Your task to perform on an android device: find photos in the google photos app Image 0: 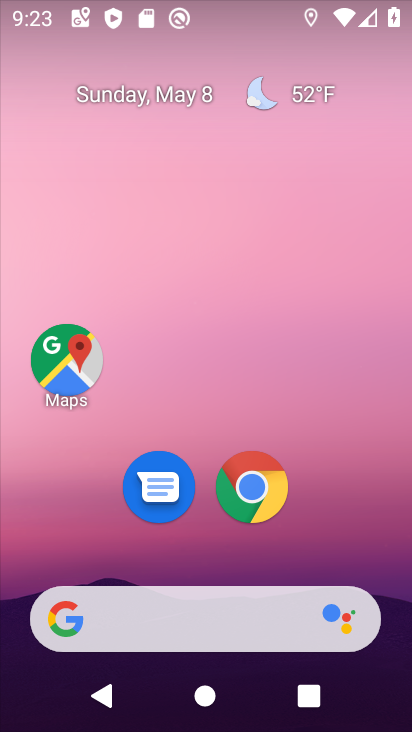
Step 0: drag from (391, 605) to (233, 45)
Your task to perform on an android device: find photos in the google photos app Image 1: 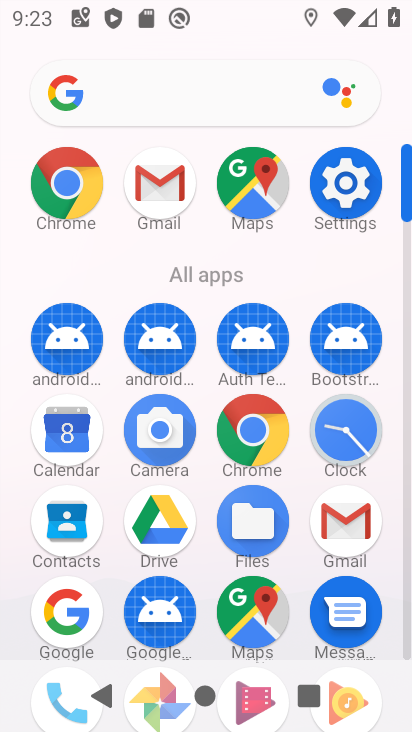
Step 1: drag from (206, 630) to (206, 219)
Your task to perform on an android device: find photos in the google photos app Image 2: 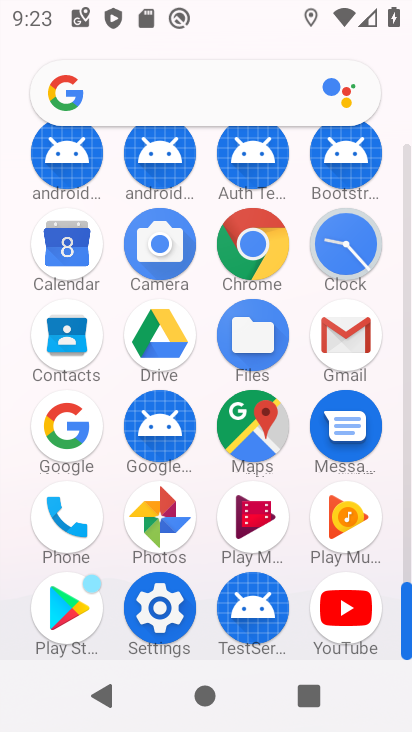
Step 2: click (169, 531)
Your task to perform on an android device: find photos in the google photos app Image 3: 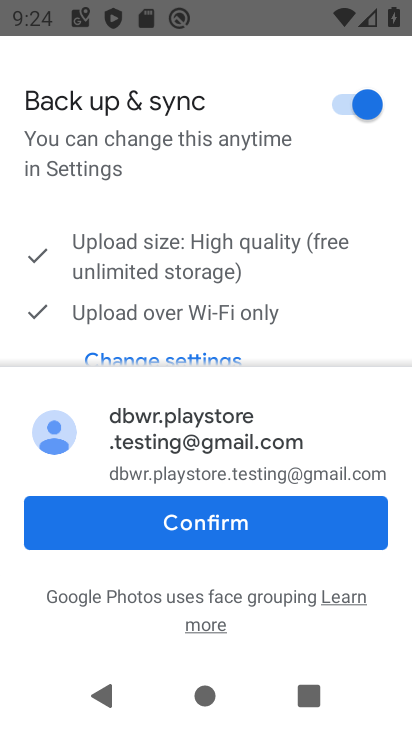
Step 3: click (240, 522)
Your task to perform on an android device: find photos in the google photos app Image 4: 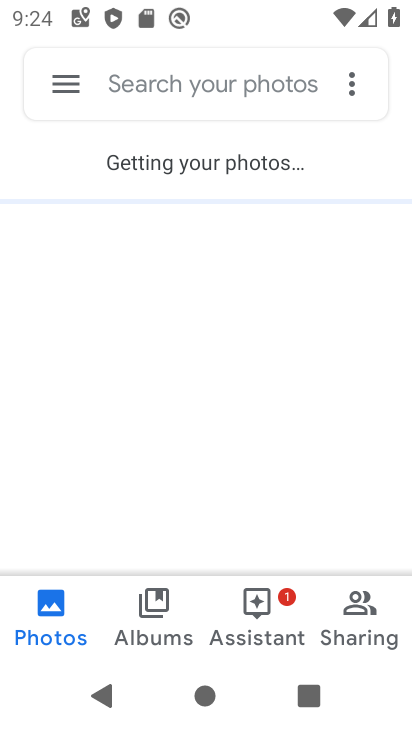
Step 4: task complete